Your task to perform on an android device: install app "eBay: The shopping marketplace" Image 0: 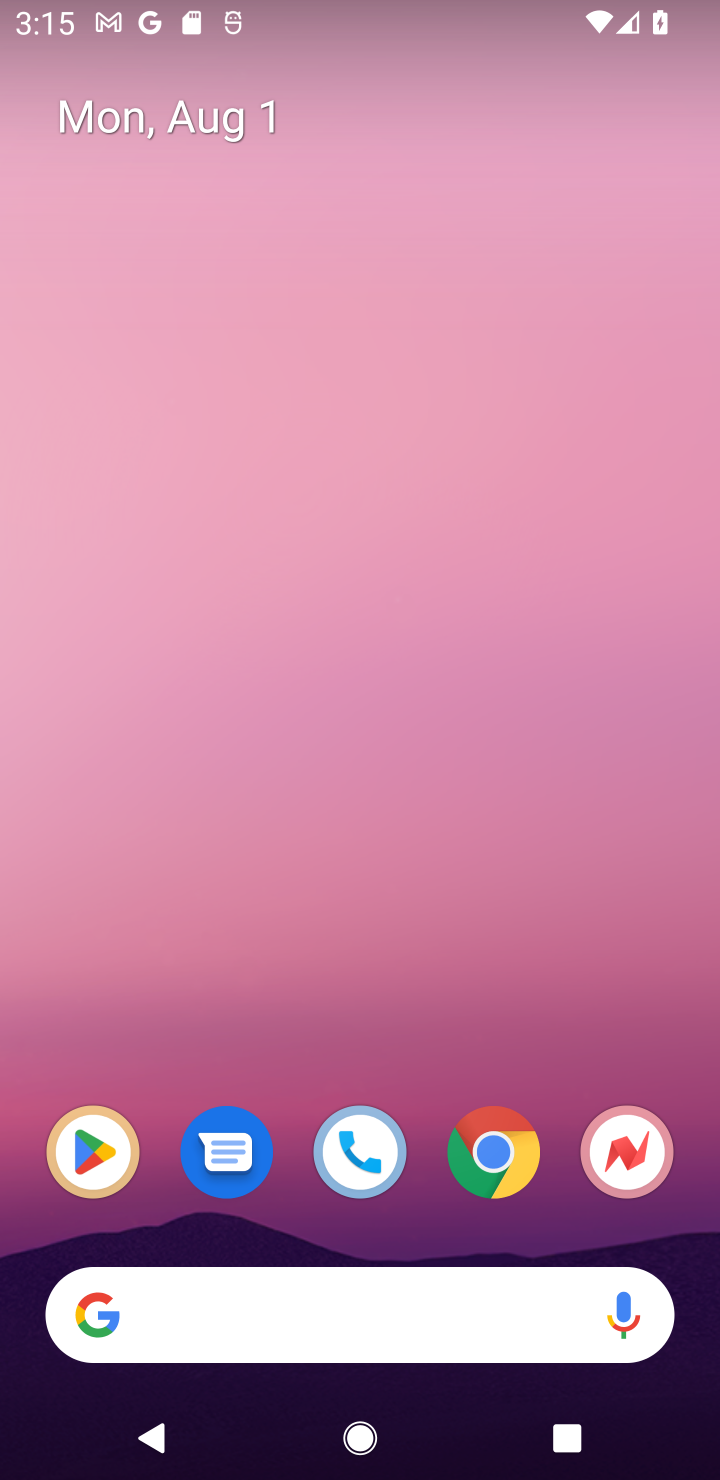
Step 0: drag from (427, 1248) to (536, 53)
Your task to perform on an android device: install app "eBay: The shopping marketplace" Image 1: 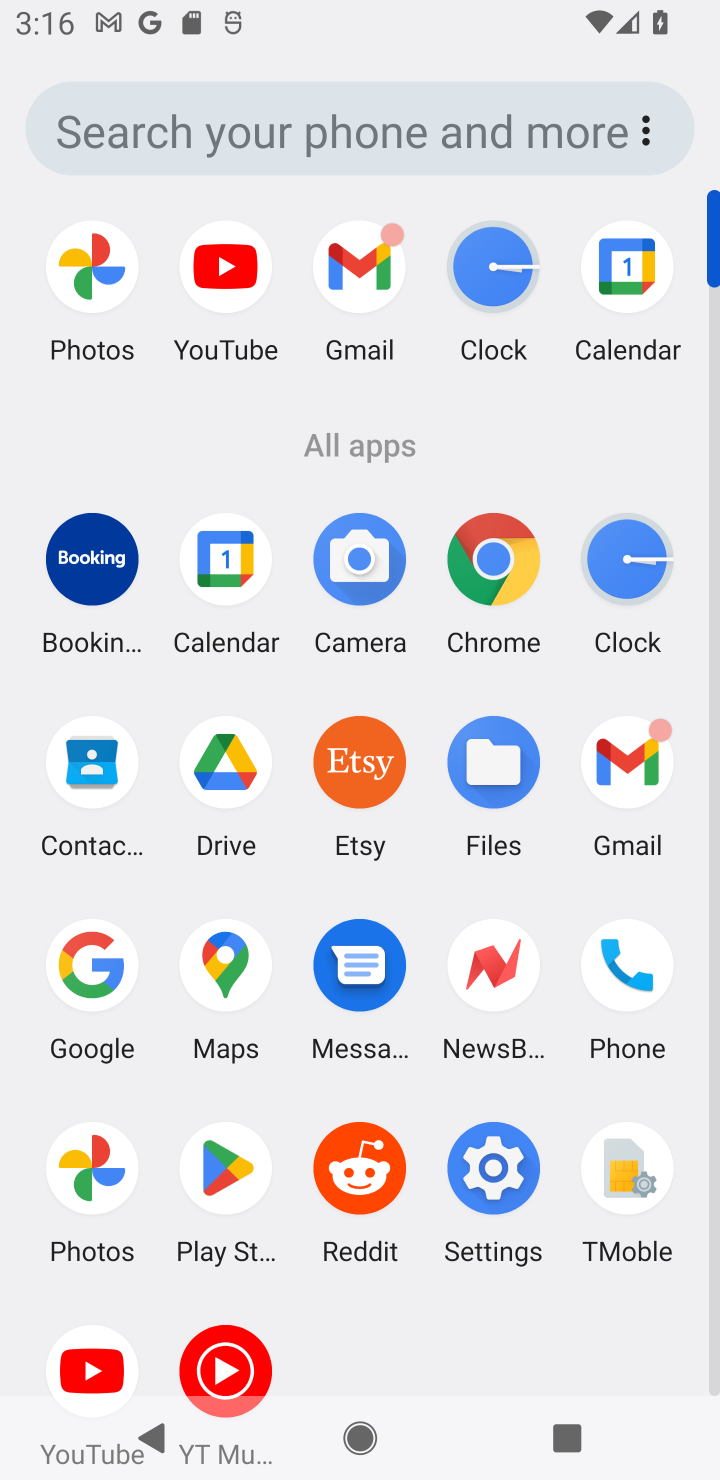
Step 1: click (225, 1188)
Your task to perform on an android device: install app "eBay: The shopping marketplace" Image 2: 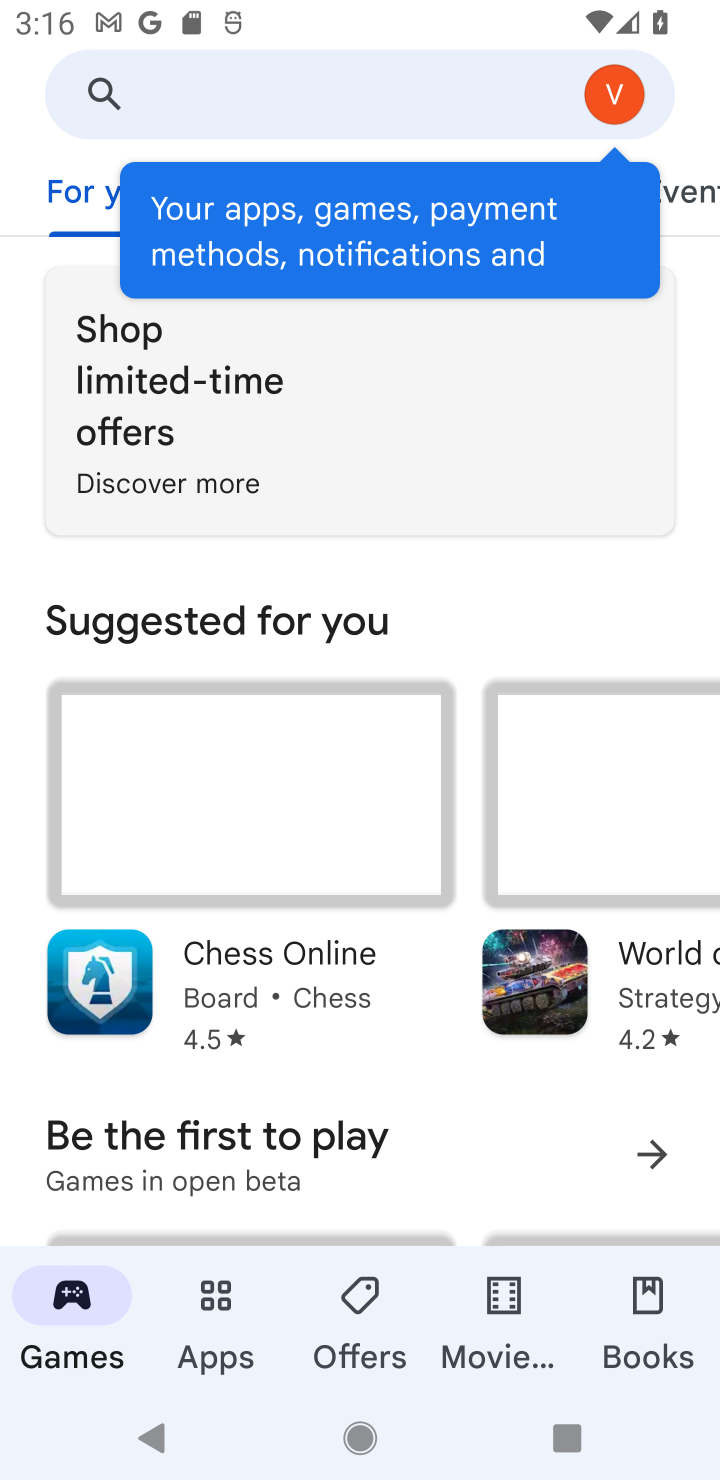
Step 2: click (292, 116)
Your task to perform on an android device: install app "eBay: The shopping marketplace" Image 3: 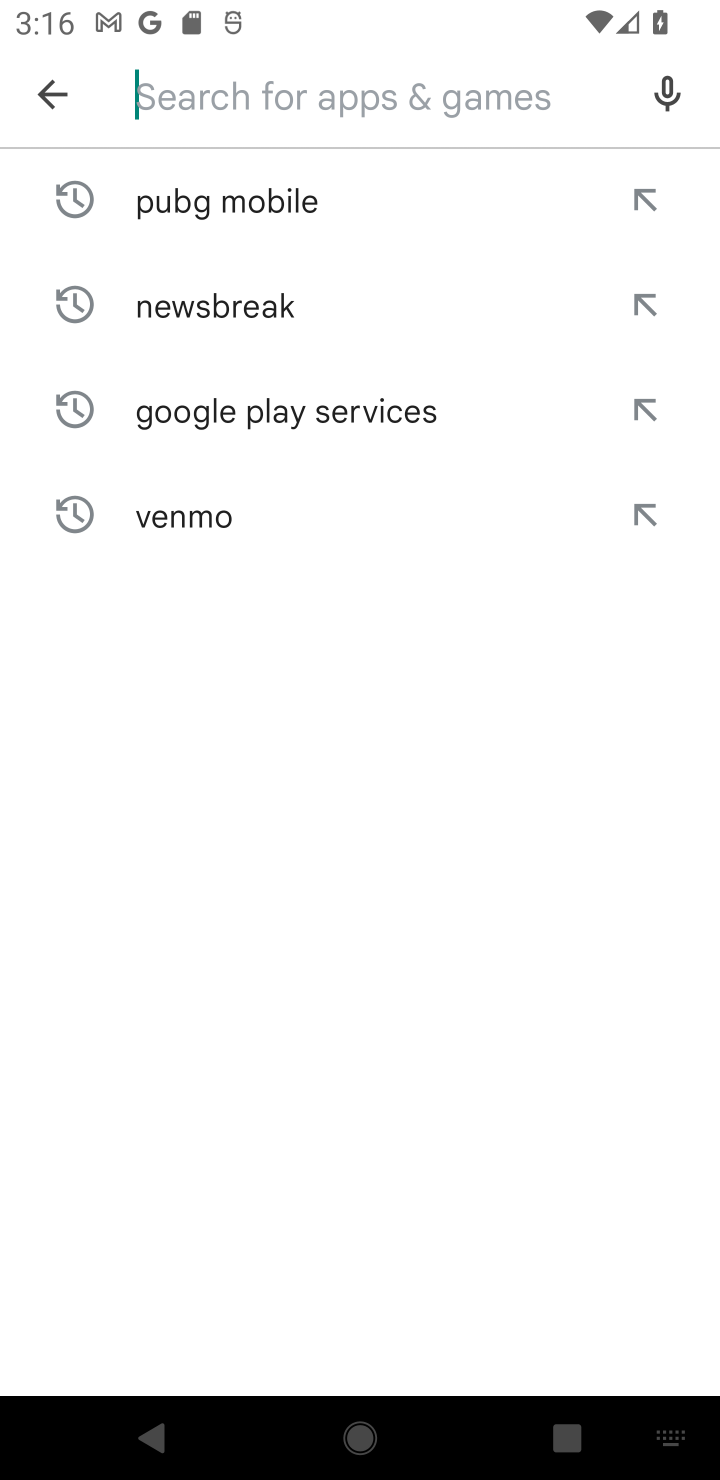
Step 3: type "eBay"
Your task to perform on an android device: install app "eBay: The shopping marketplace" Image 4: 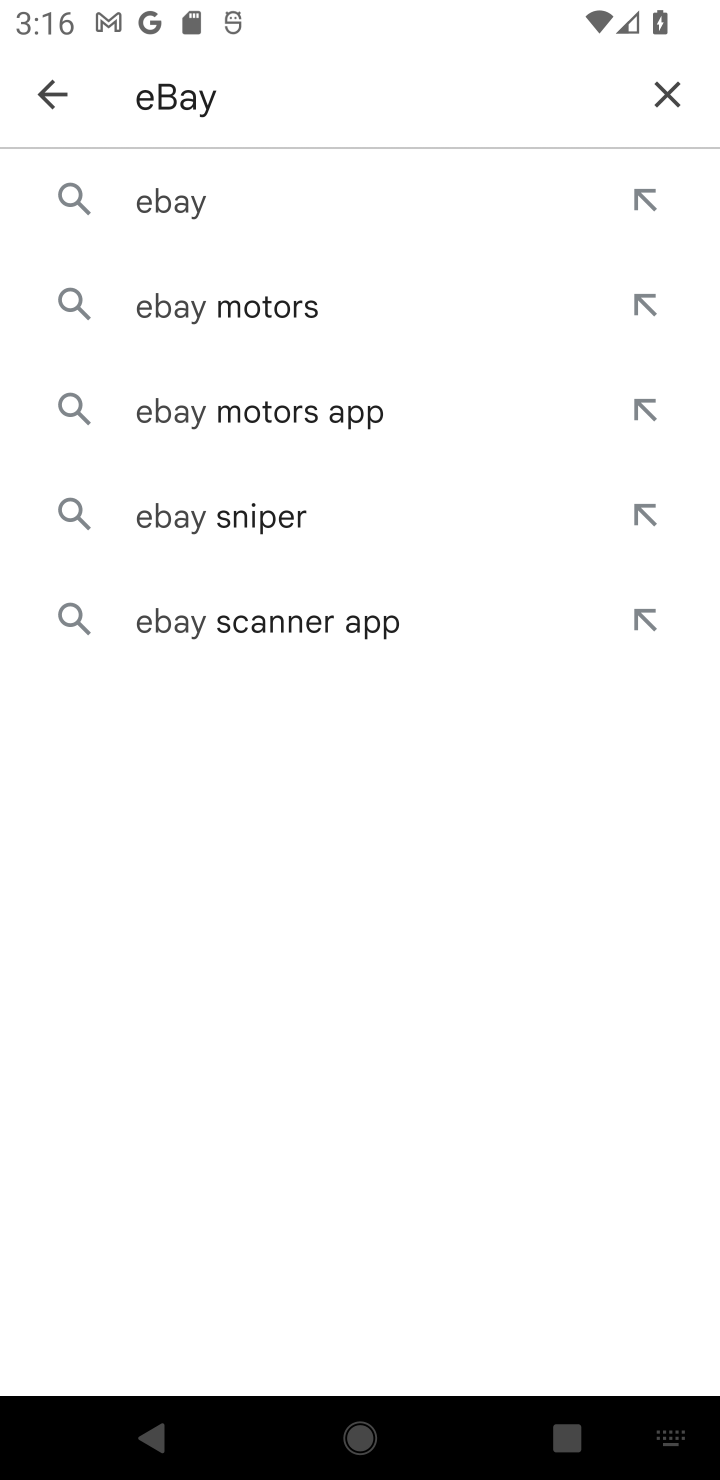
Step 4: click (181, 211)
Your task to perform on an android device: install app "eBay: The shopping marketplace" Image 5: 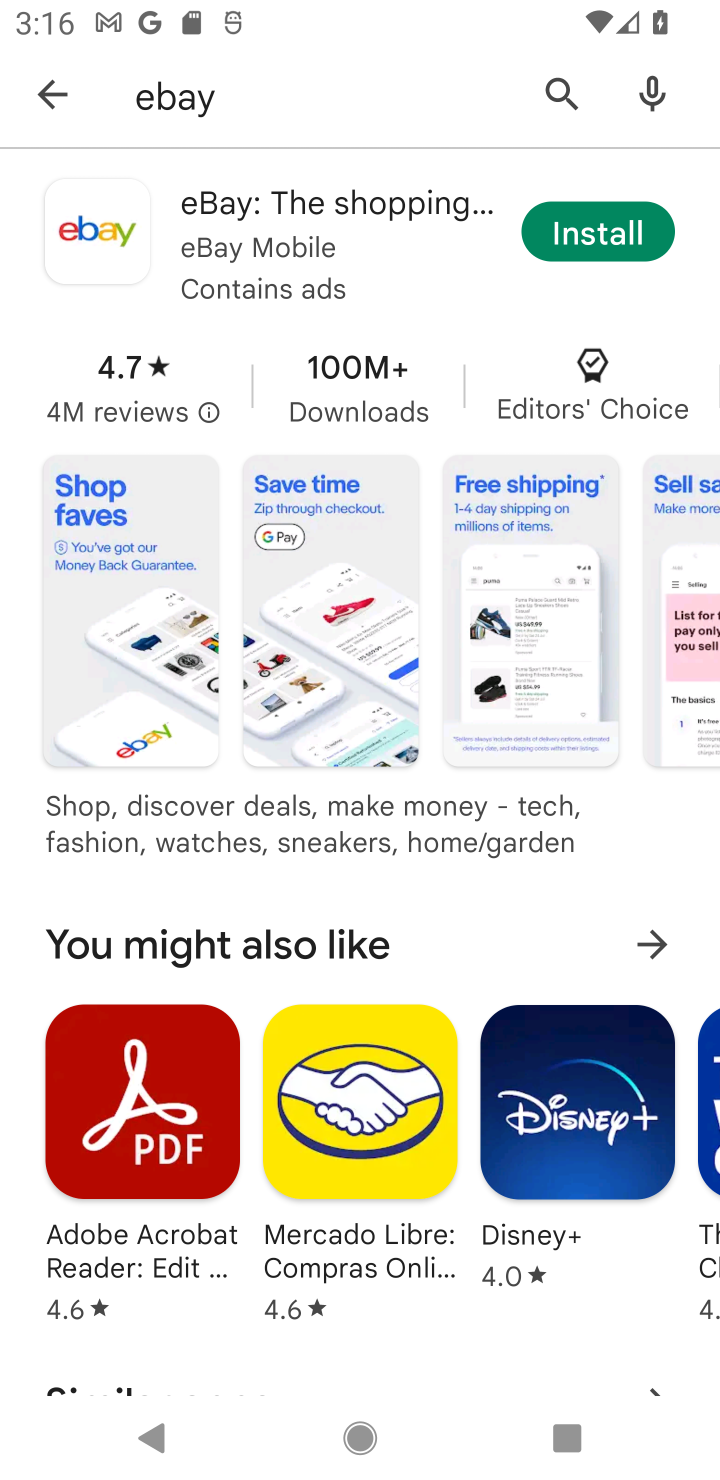
Step 5: click (600, 239)
Your task to perform on an android device: install app "eBay: The shopping marketplace" Image 6: 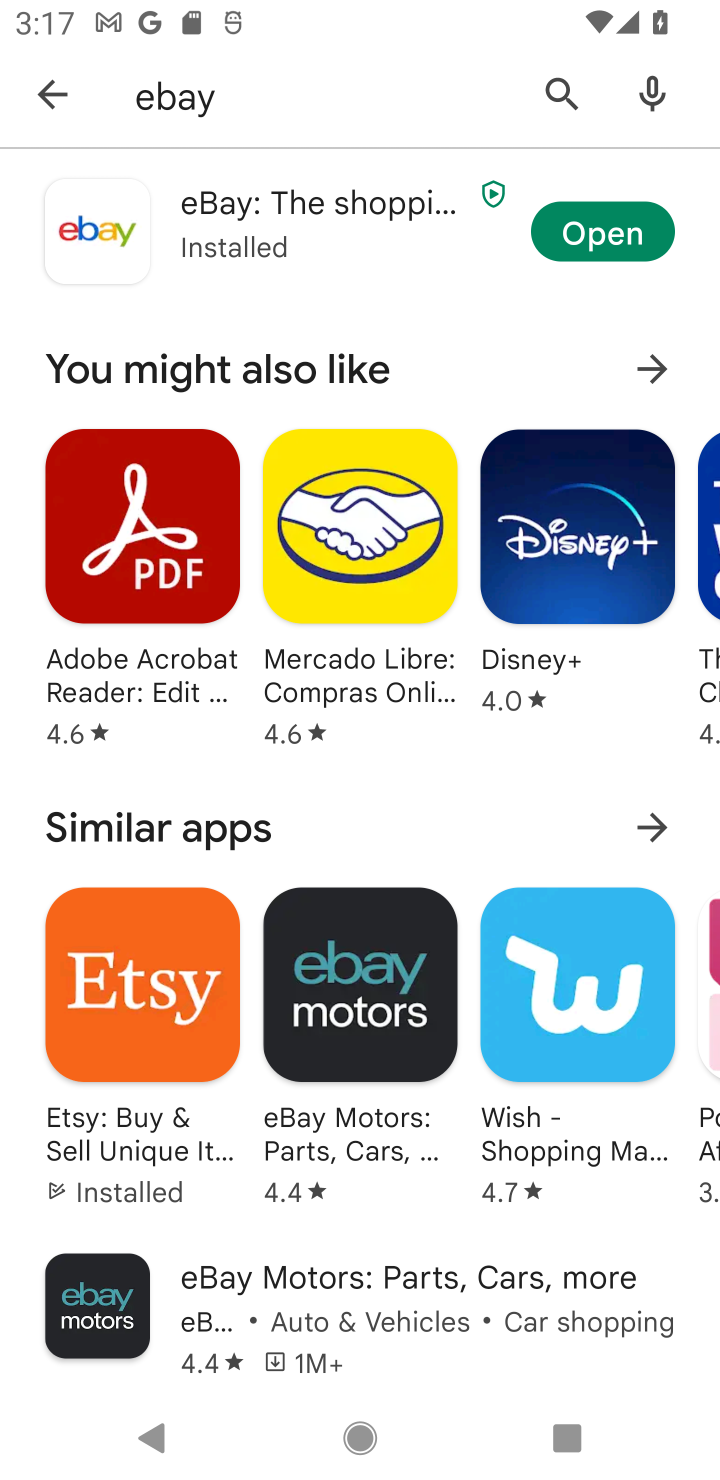
Step 6: click (578, 230)
Your task to perform on an android device: install app "eBay: The shopping marketplace" Image 7: 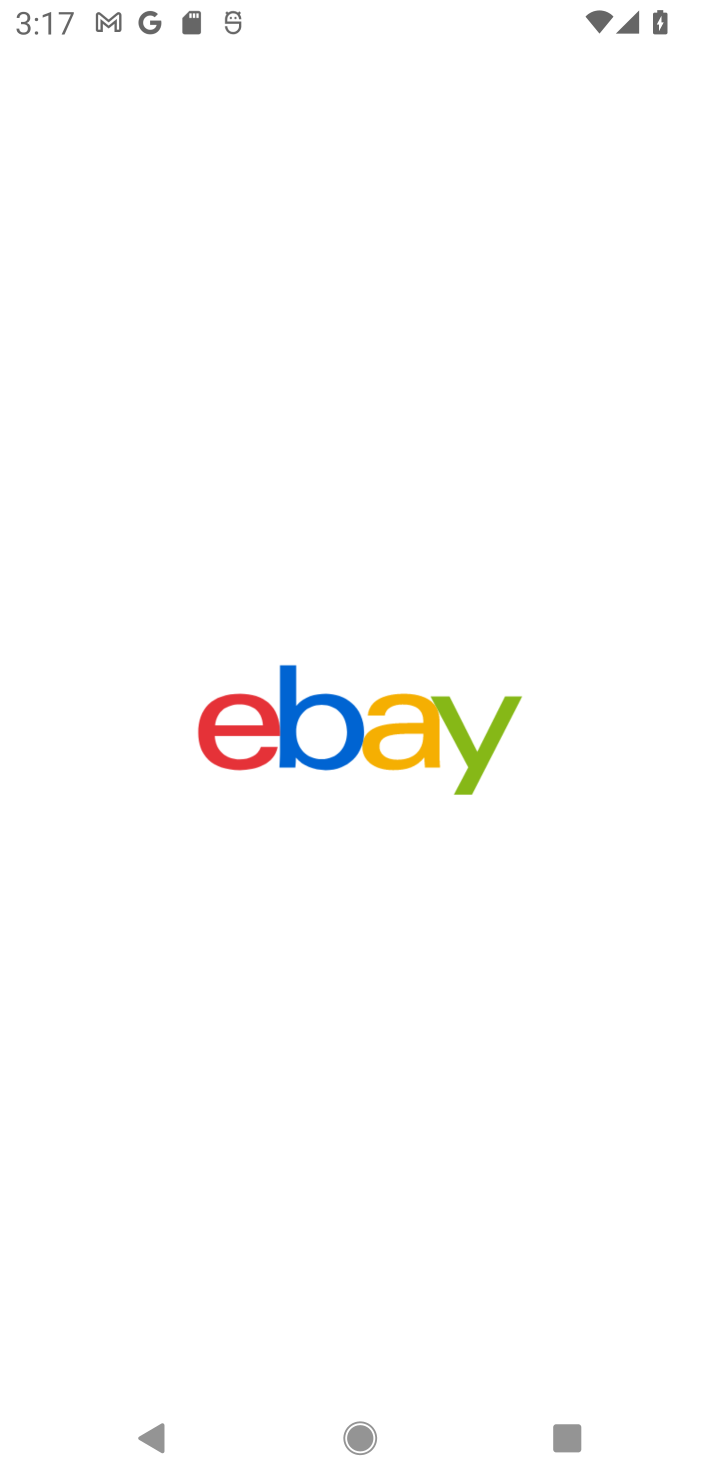
Step 7: task complete